Your task to perform on an android device: turn pop-ups off in chrome Image 0: 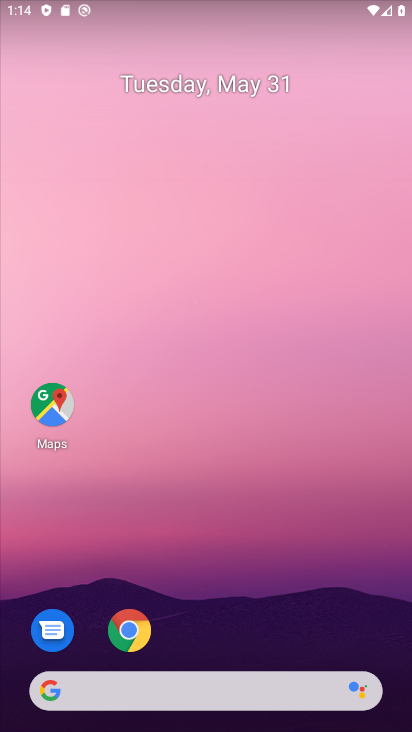
Step 0: drag from (275, 586) to (209, 9)
Your task to perform on an android device: turn pop-ups off in chrome Image 1: 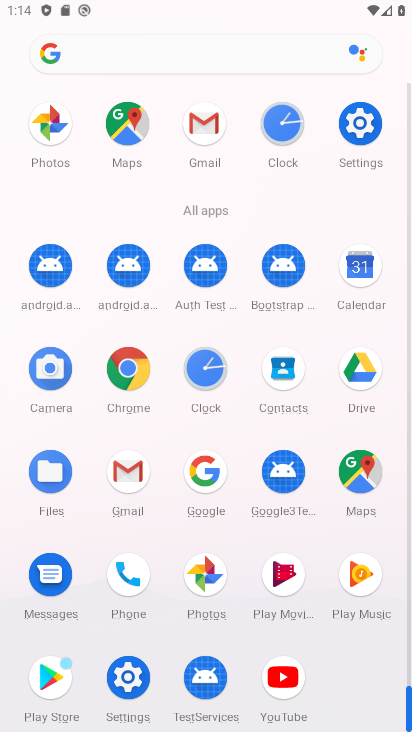
Step 1: drag from (11, 546) to (27, 281)
Your task to perform on an android device: turn pop-ups off in chrome Image 2: 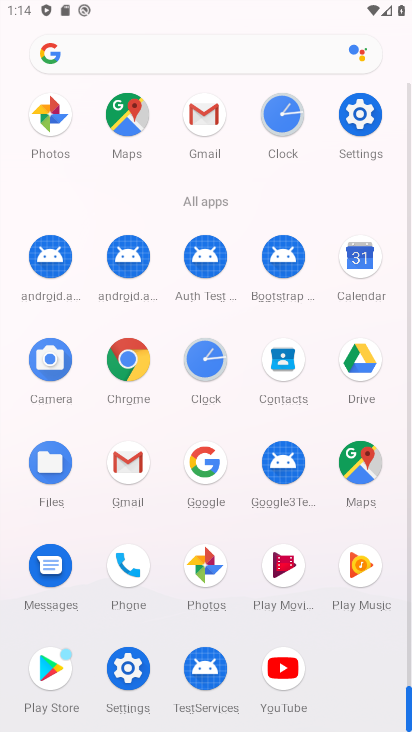
Step 2: click (127, 357)
Your task to perform on an android device: turn pop-ups off in chrome Image 3: 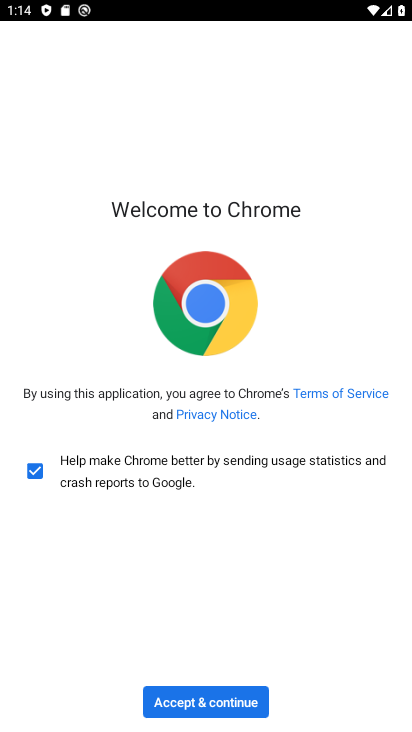
Step 3: click (231, 700)
Your task to perform on an android device: turn pop-ups off in chrome Image 4: 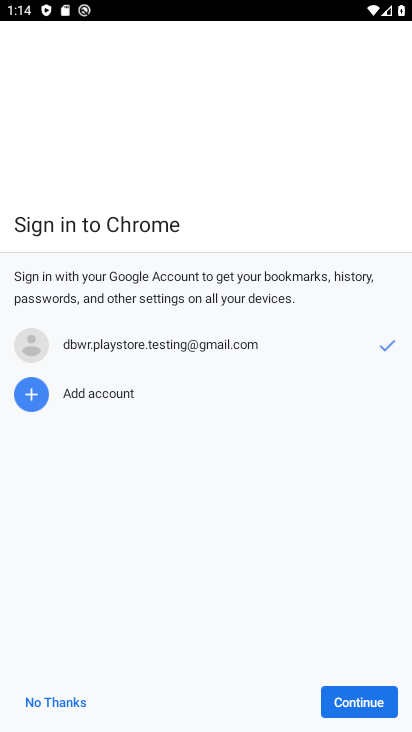
Step 4: click (364, 698)
Your task to perform on an android device: turn pop-ups off in chrome Image 5: 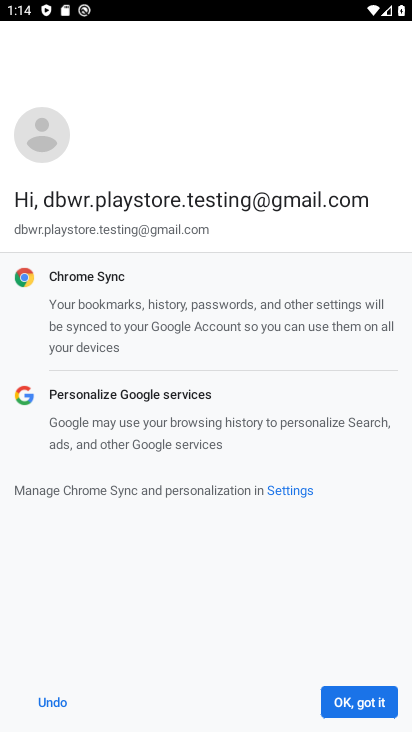
Step 5: click (364, 698)
Your task to perform on an android device: turn pop-ups off in chrome Image 6: 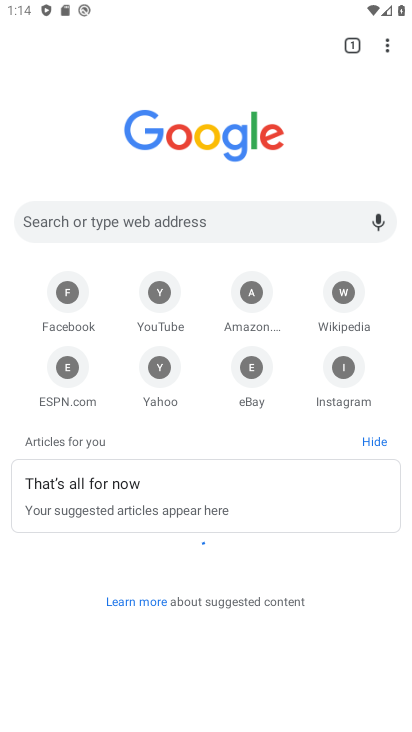
Step 6: drag from (389, 34) to (236, 367)
Your task to perform on an android device: turn pop-ups off in chrome Image 7: 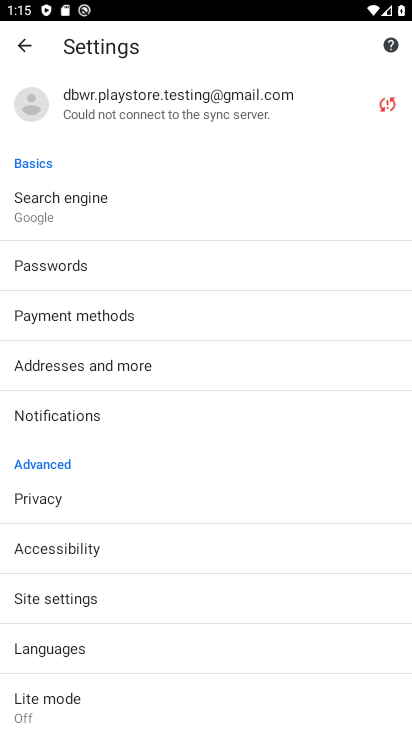
Step 7: click (85, 597)
Your task to perform on an android device: turn pop-ups off in chrome Image 8: 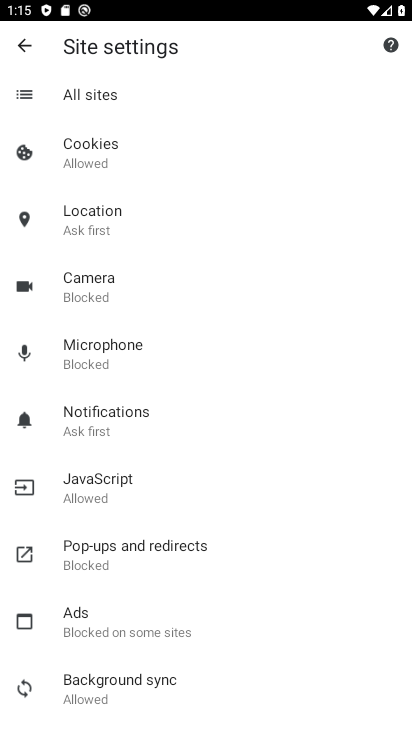
Step 8: click (119, 547)
Your task to perform on an android device: turn pop-ups off in chrome Image 9: 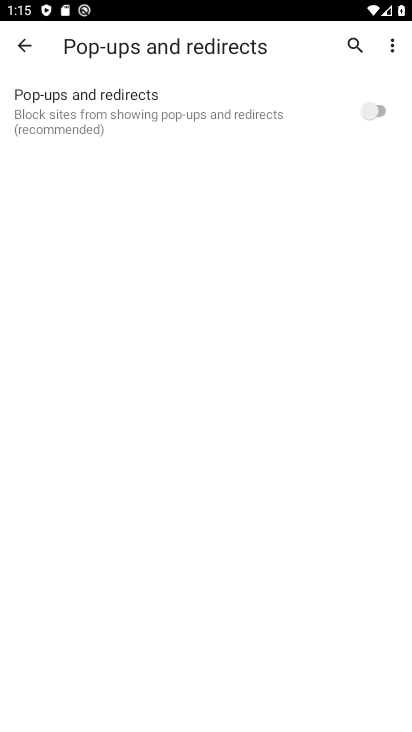
Step 9: task complete